Your task to perform on an android device: turn on wifi Image 0: 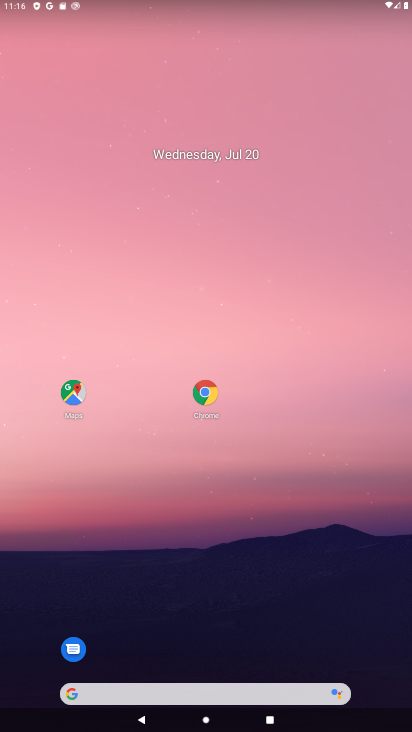
Step 0: drag from (138, 627) to (142, 186)
Your task to perform on an android device: turn on wifi Image 1: 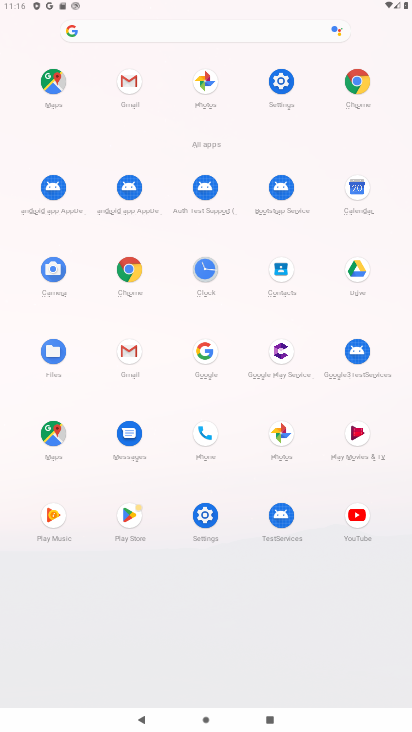
Step 1: click (285, 75)
Your task to perform on an android device: turn on wifi Image 2: 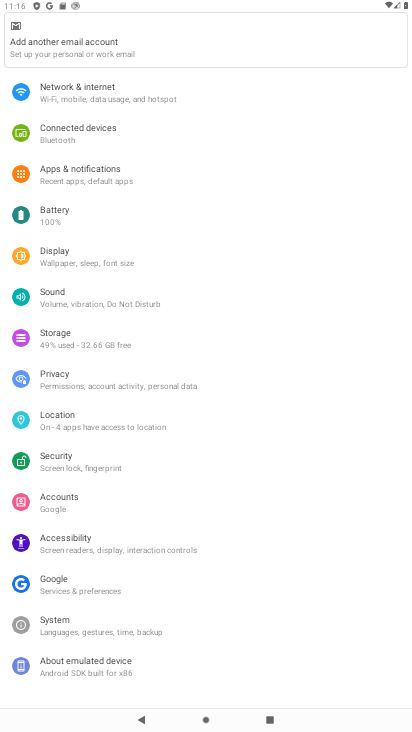
Step 2: click (112, 87)
Your task to perform on an android device: turn on wifi Image 3: 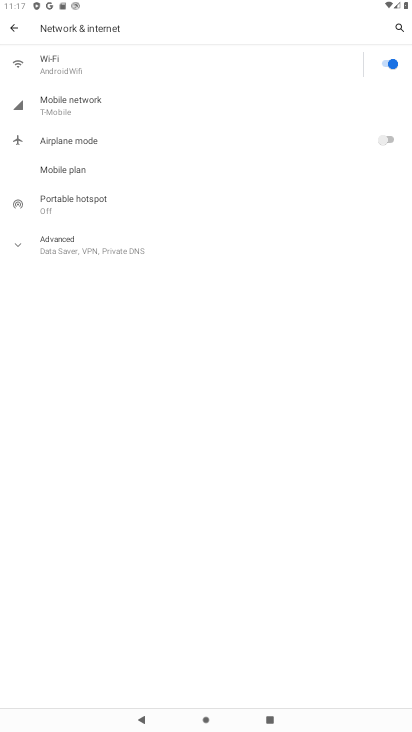
Step 3: task complete